Your task to perform on an android device: Go to internet settings Image 0: 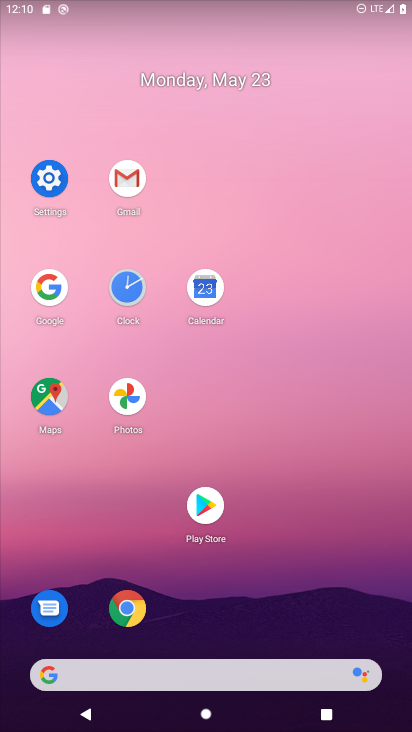
Step 0: click (61, 193)
Your task to perform on an android device: Go to internet settings Image 1: 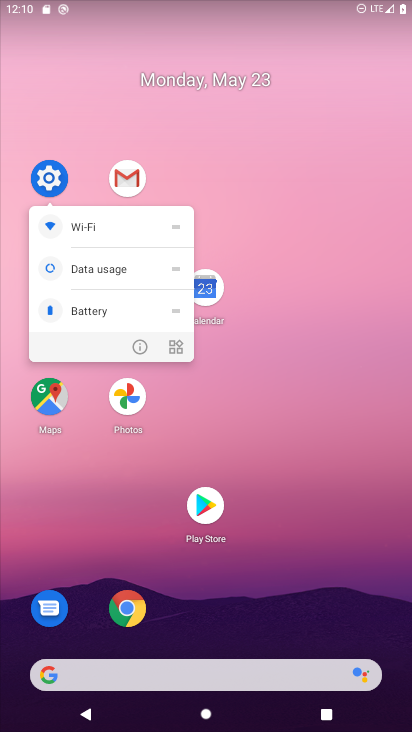
Step 1: click (62, 192)
Your task to perform on an android device: Go to internet settings Image 2: 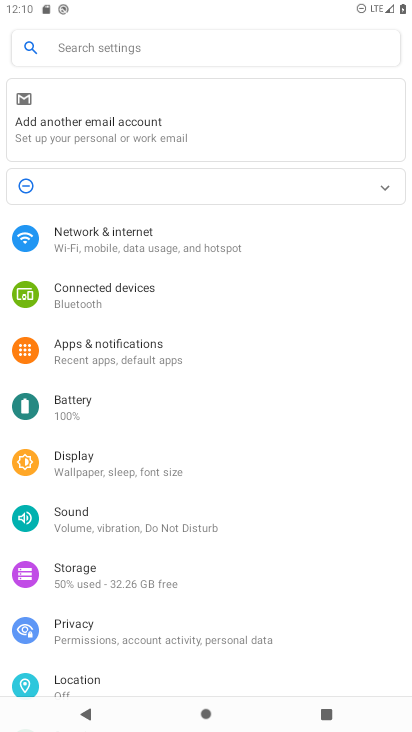
Step 2: click (204, 251)
Your task to perform on an android device: Go to internet settings Image 3: 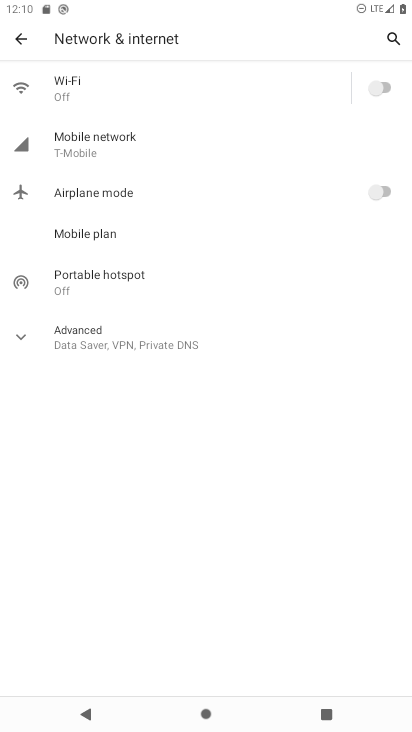
Step 3: click (63, 127)
Your task to perform on an android device: Go to internet settings Image 4: 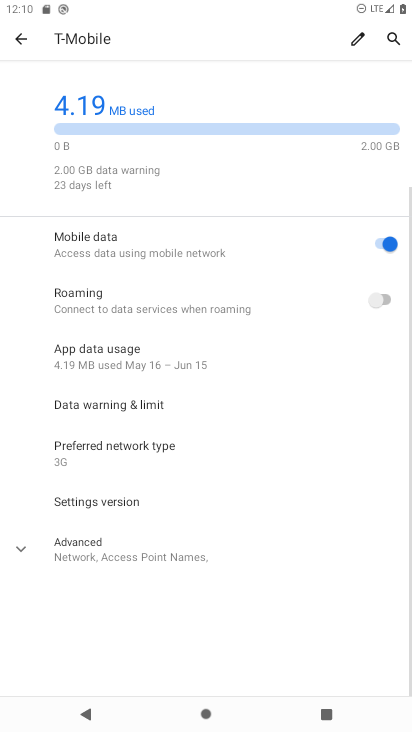
Step 4: task complete